Your task to perform on an android device: check storage Image 0: 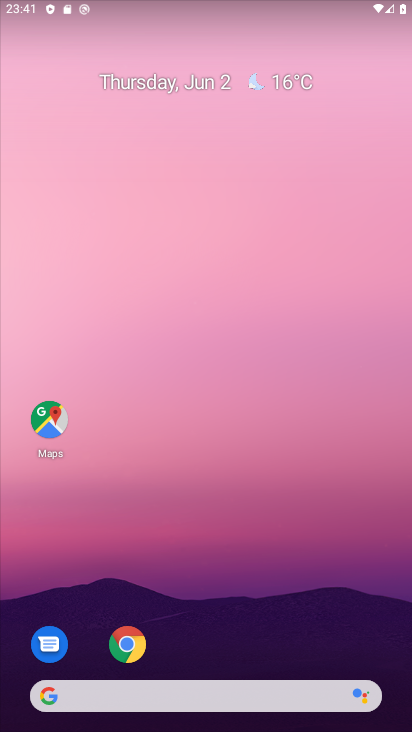
Step 0: drag from (190, 651) to (275, 282)
Your task to perform on an android device: check storage Image 1: 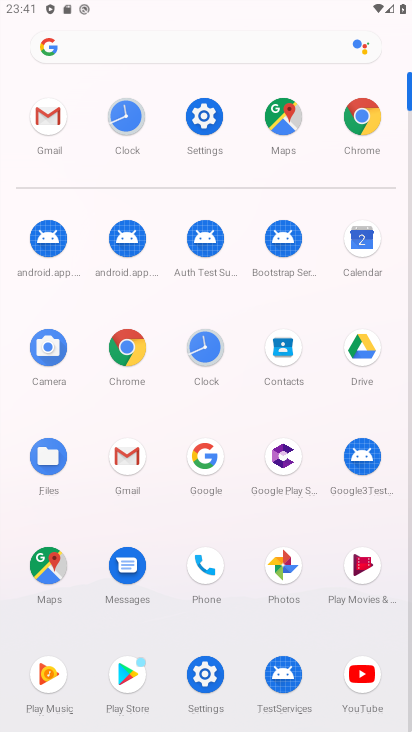
Step 1: click (198, 671)
Your task to perform on an android device: check storage Image 2: 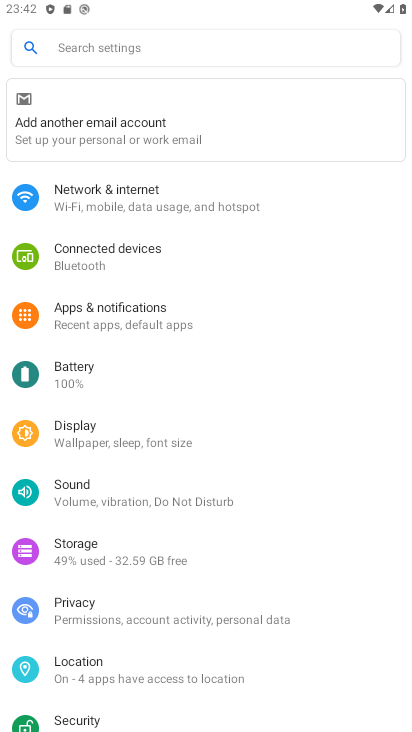
Step 2: click (82, 542)
Your task to perform on an android device: check storage Image 3: 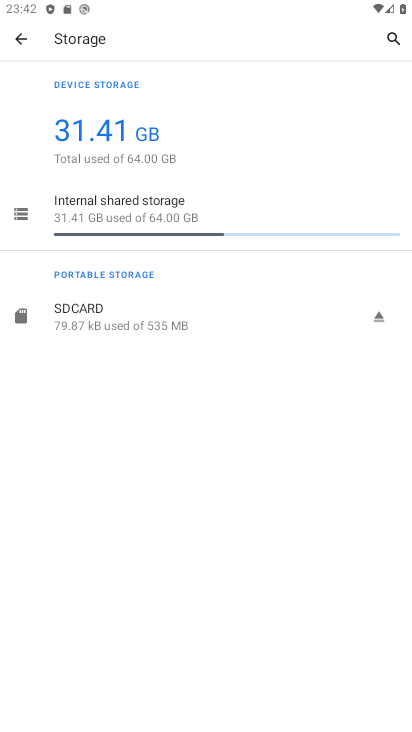
Step 3: task complete